Your task to perform on an android device: open the mobile data screen to see how much data has been used Image 0: 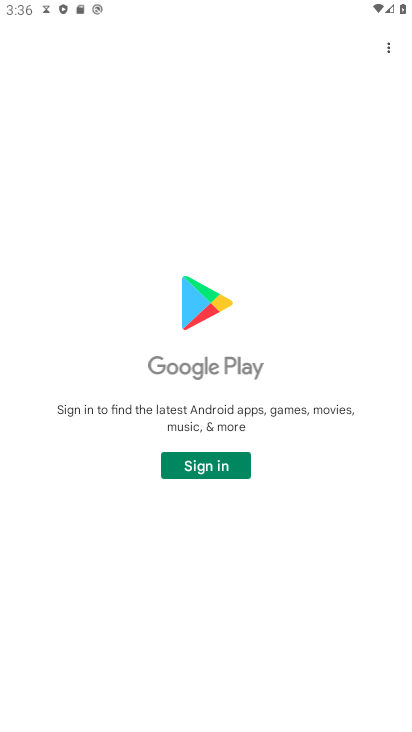
Step 0: press home button
Your task to perform on an android device: open the mobile data screen to see how much data has been used Image 1: 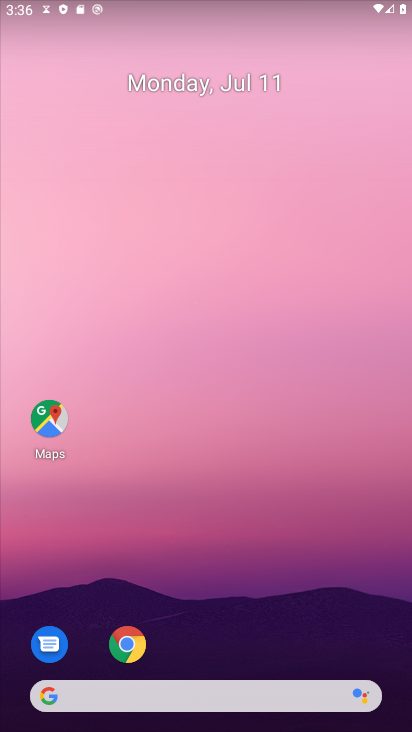
Step 1: drag from (227, 724) to (215, 217)
Your task to perform on an android device: open the mobile data screen to see how much data has been used Image 2: 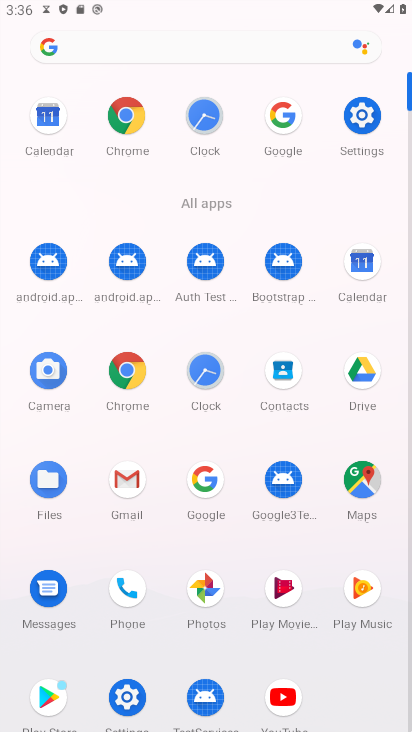
Step 2: click (359, 115)
Your task to perform on an android device: open the mobile data screen to see how much data has been used Image 3: 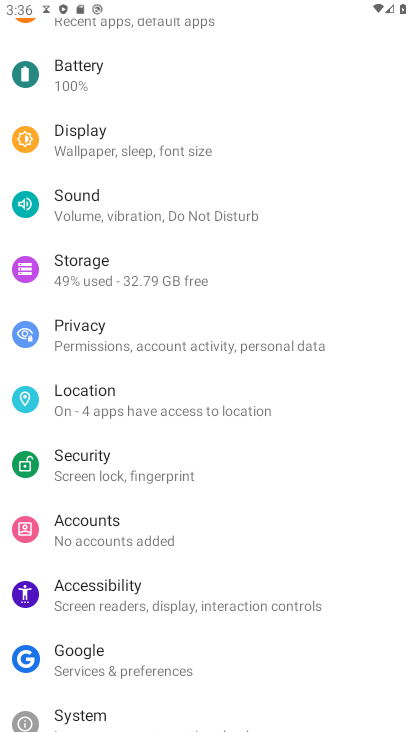
Step 3: drag from (245, 121) to (245, 221)
Your task to perform on an android device: open the mobile data screen to see how much data has been used Image 4: 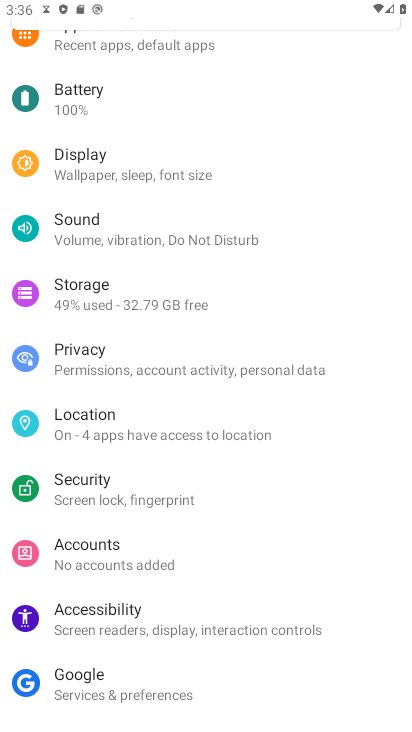
Step 4: drag from (241, 453) to (222, 591)
Your task to perform on an android device: open the mobile data screen to see how much data has been used Image 5: 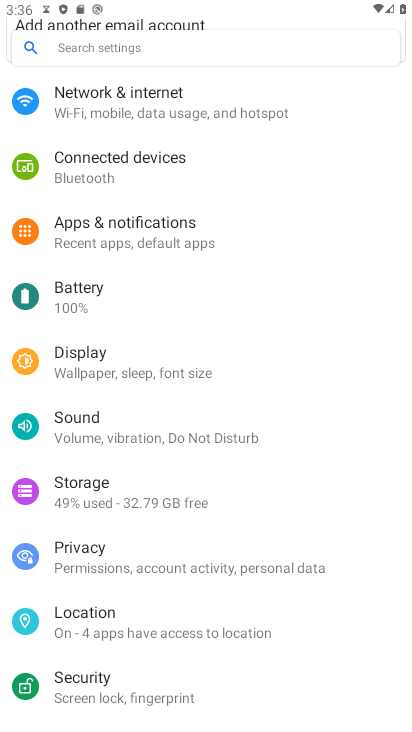
Step 5: drag from (222, 140) to (237, 597)
Your task to perform on an android device: open the mobile data screen to see how much data has been used Image 6: 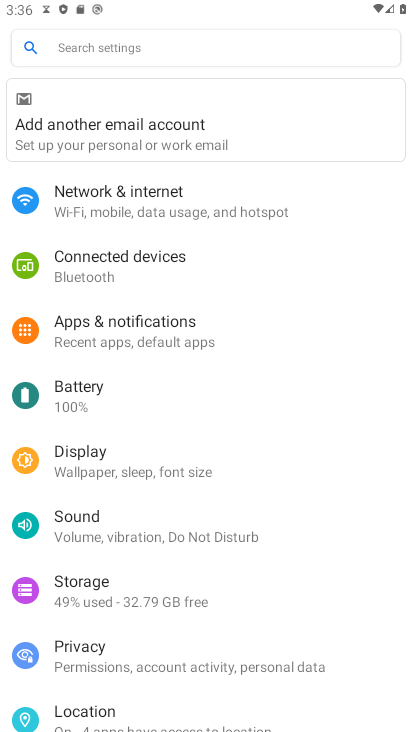
Step 6: click (122, 204)
Your task to perform on an android device: open the mobile data screen to see how much data has been used Image 7: 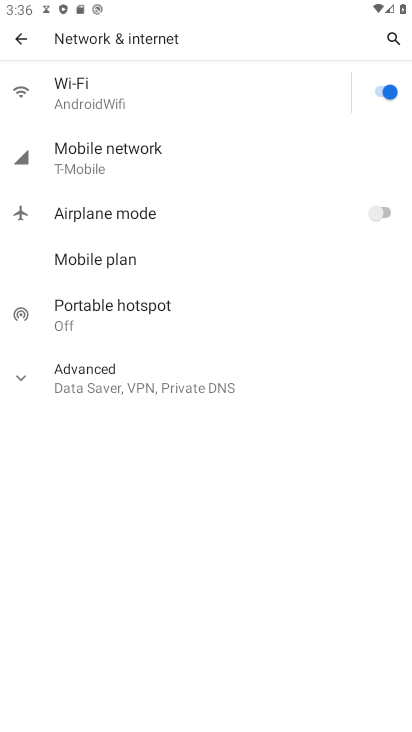
Step 7: click (102, 160)
Your task to perform on an android device: open the mobile data screen to see how much data has been used Image 8: 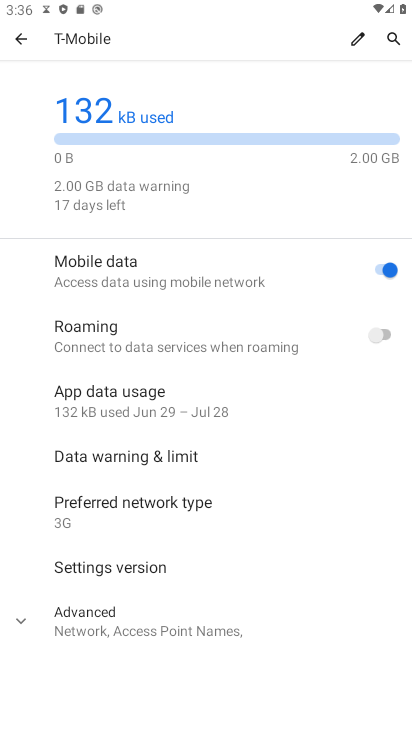
Step 8: click (121, 399)
Your task to perform on an android device: open the mobile data screen to see how much data has been used Image 9: 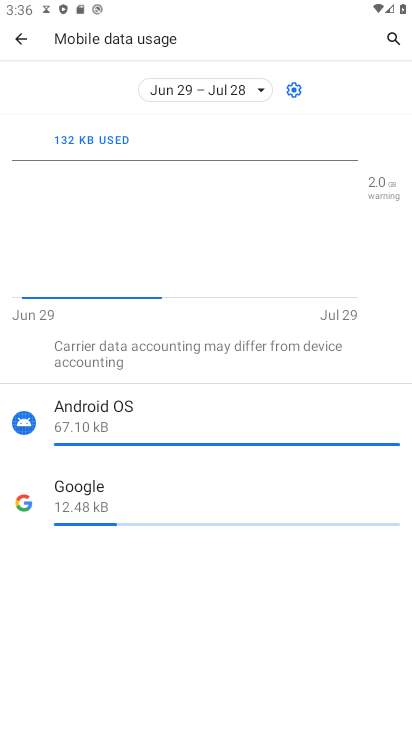
Step 9: task complete